Your task to perform on an android device: Open sound settings Image 0: 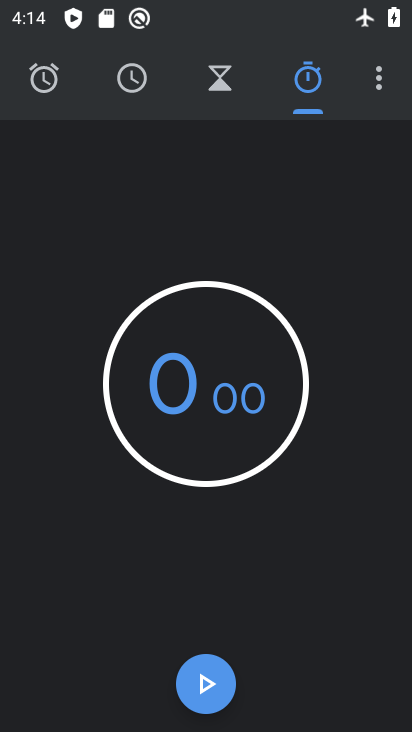
Step 0: press home button
Your task to perform on an android device: Open sound settings Image 1: 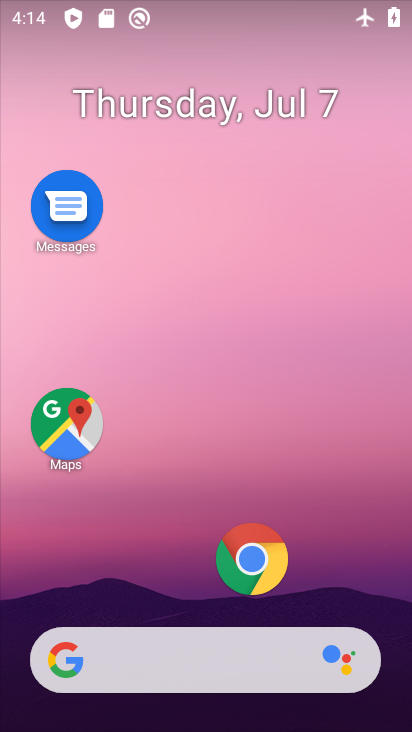
Step 1: drag from (174, 628) to (234, 7)
Your task to perform on an android device: Open sound settings Image 2: 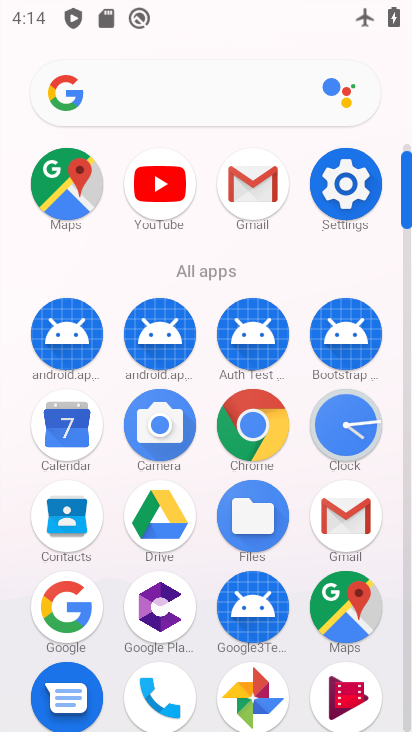
Step 2: click (343, 189)
Your task to perform on an android device: Open sound settings Image 3: 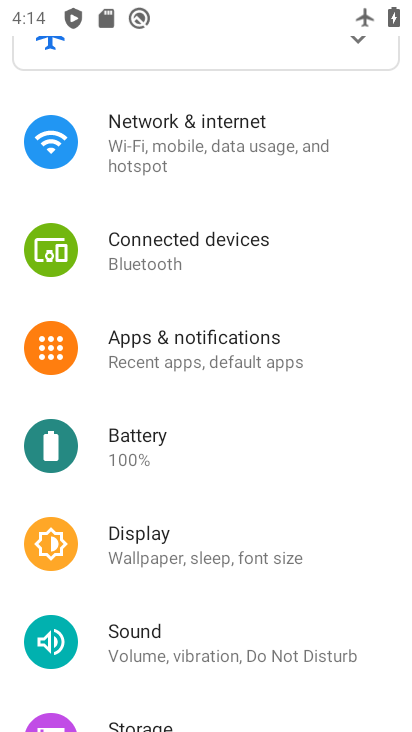
Step 3: click (164, 621)
Your task to perform on an android device: Open sound settings Image 4: 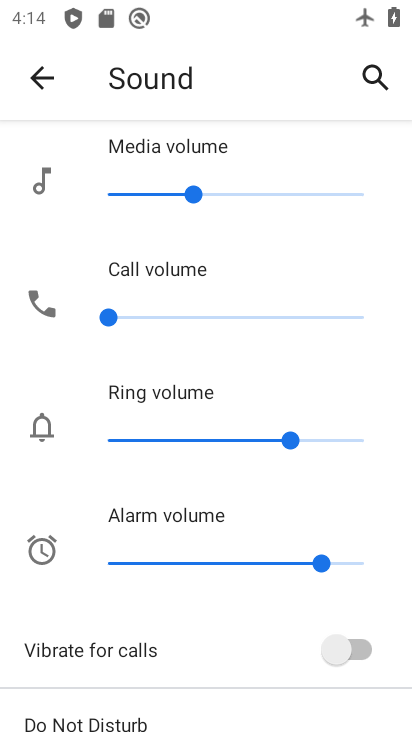
Step 4: drag from (236, 535) to (197, 25)
Your task to perform on an android device: Open sound settings Image 5: 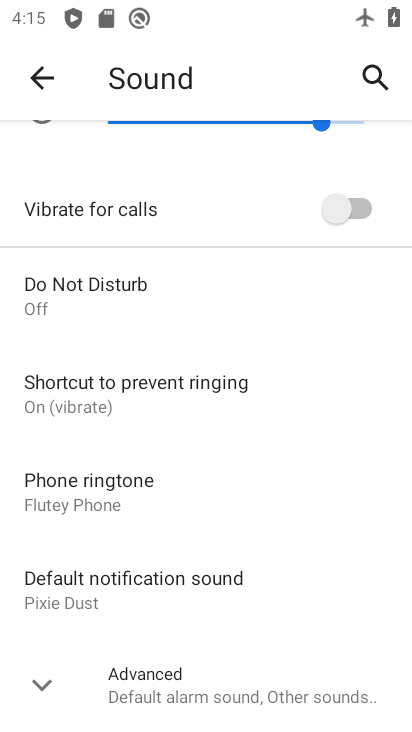
Step 5: click (188, 701)
Your task to perform on an android device: Open sound settings Image 6: 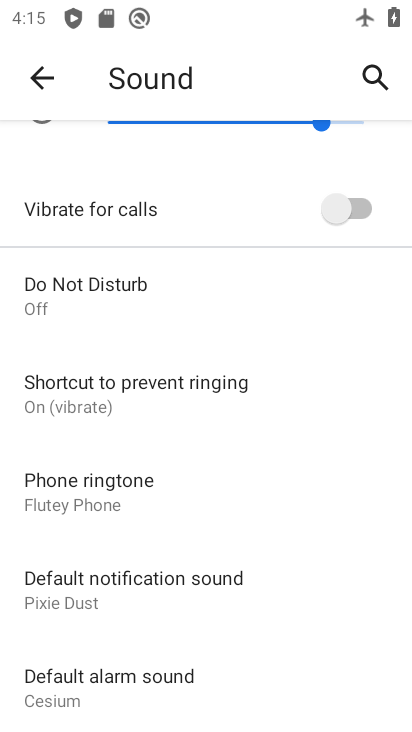
Step 6: task complete